Your task to perform on an android device: Open privacy settings Image 0: 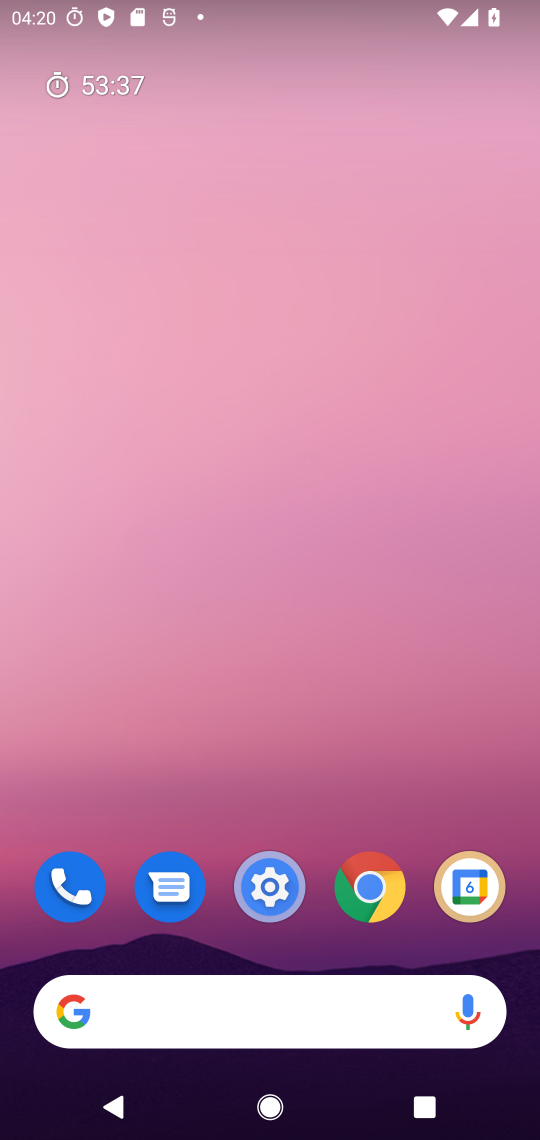
Step 0: press home button
Your task to perform on an android device: Open privacy settings Image 1: 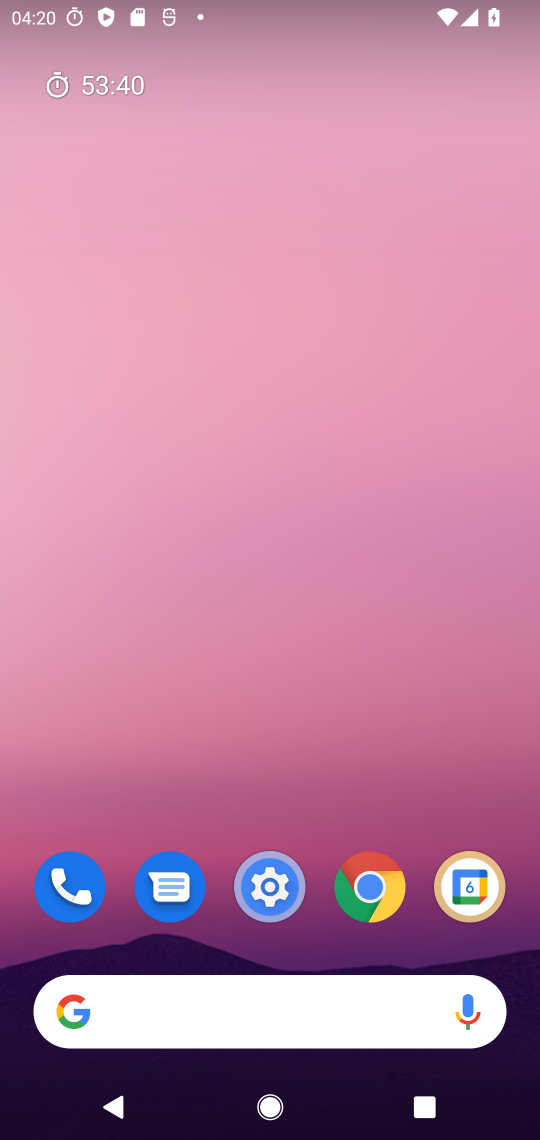
Step 1: drag from (421, 784) to (431, 355)
Your task to perform on an android device: Open privacy settings Image 2: 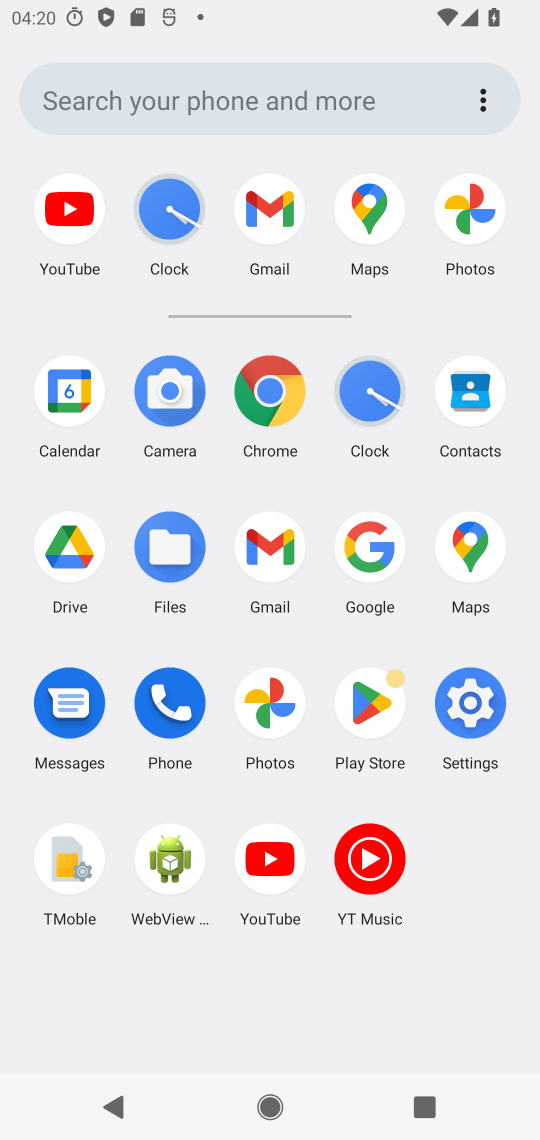
Step 2: click (468, 711)
Your task to perform on an android device: Open privacy settings Image 3: 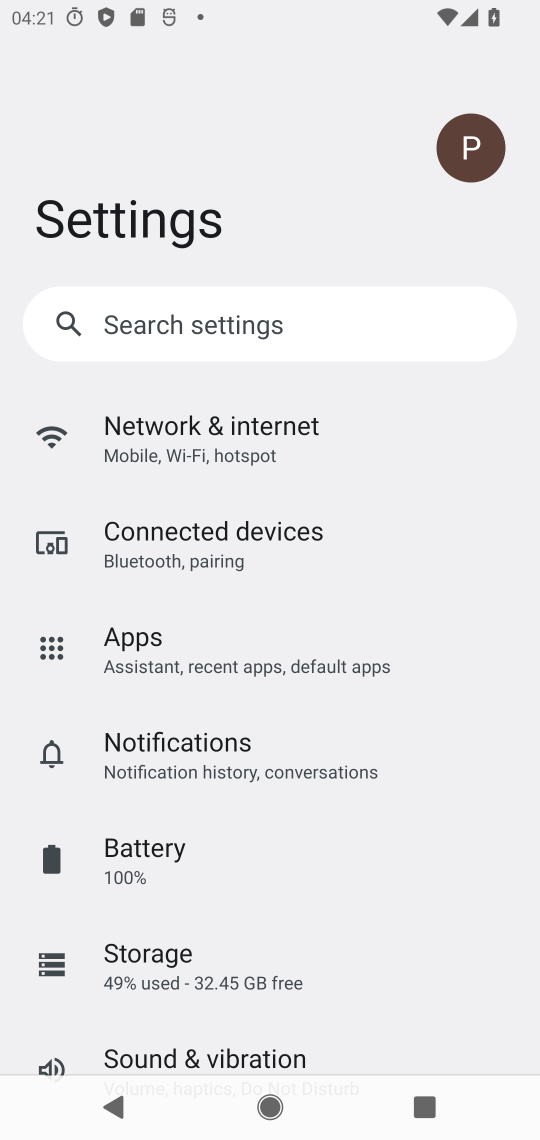
Step 3: drag from (438, 869) to (454, 713)
Your task to perform on an android device: Open privacy settings Image 4: 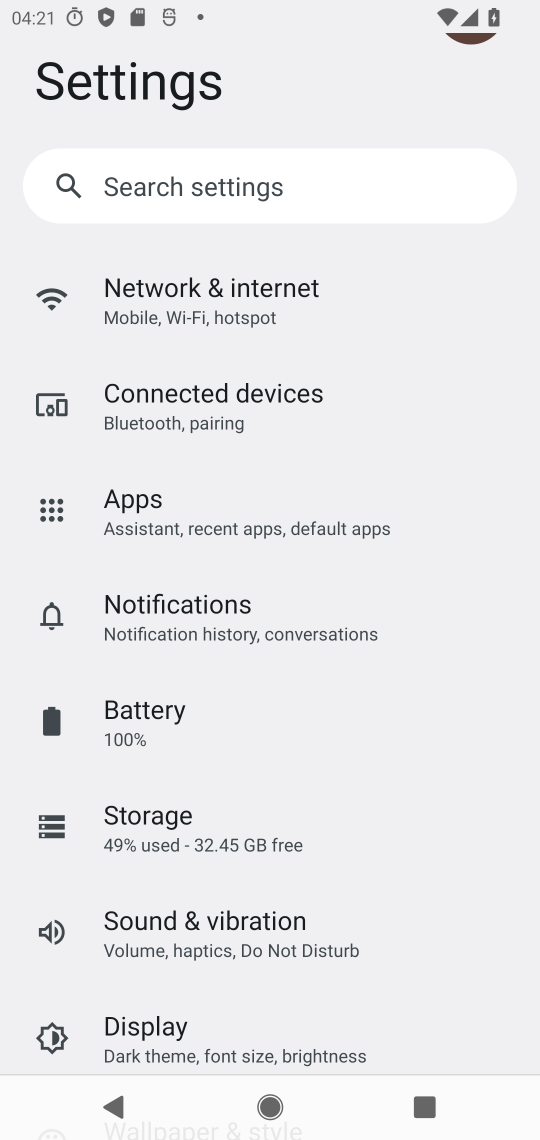
Step 4: drag from (447, 862) to (447, 683)
Your task to perform on an android device: Open privacy settings Image 5: 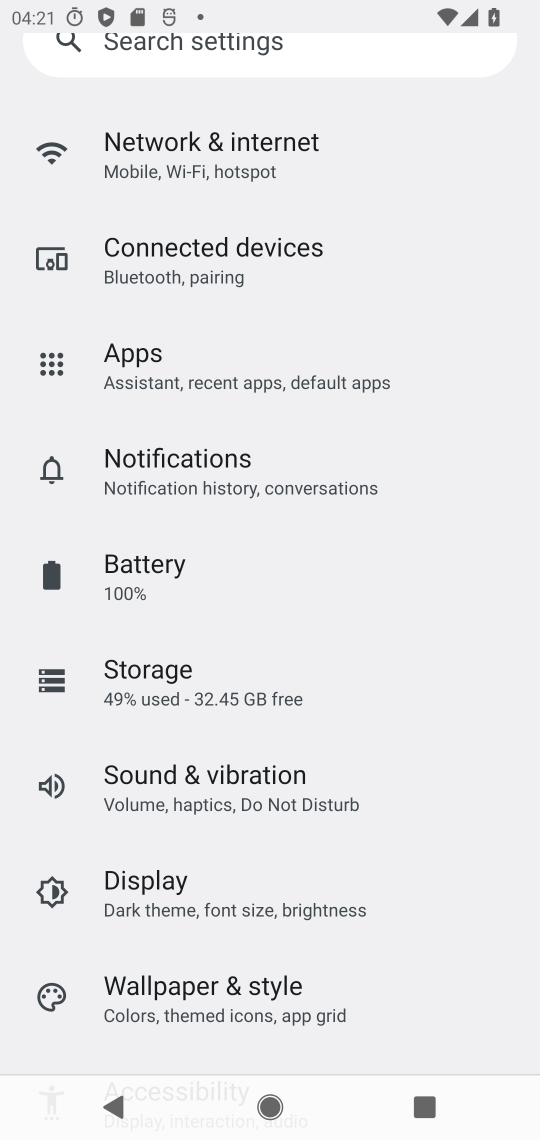
Step 5: drag from (427, 861) to (441, 696)
Your task to perform on an android device: Open privacy settings Image 6: 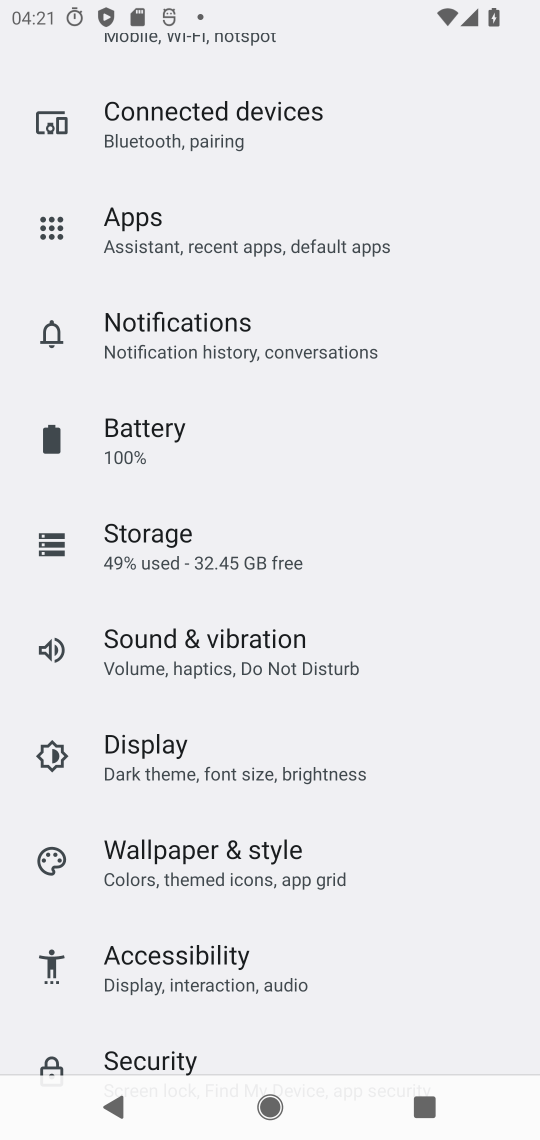
Step 6: drag from (465, 848) to (459, 684)
Your task to perform on an android device: Open privacy settings Image 7: 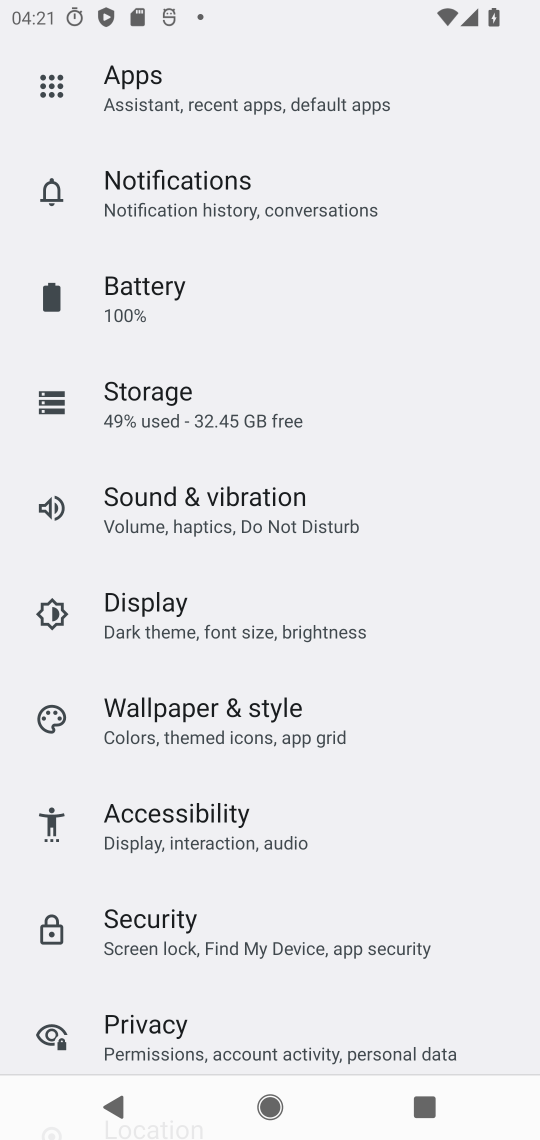
Step 7: drag from (443, 875) to (446, 640)
Your task to perform on an android device: Open privacy settings Image 8: 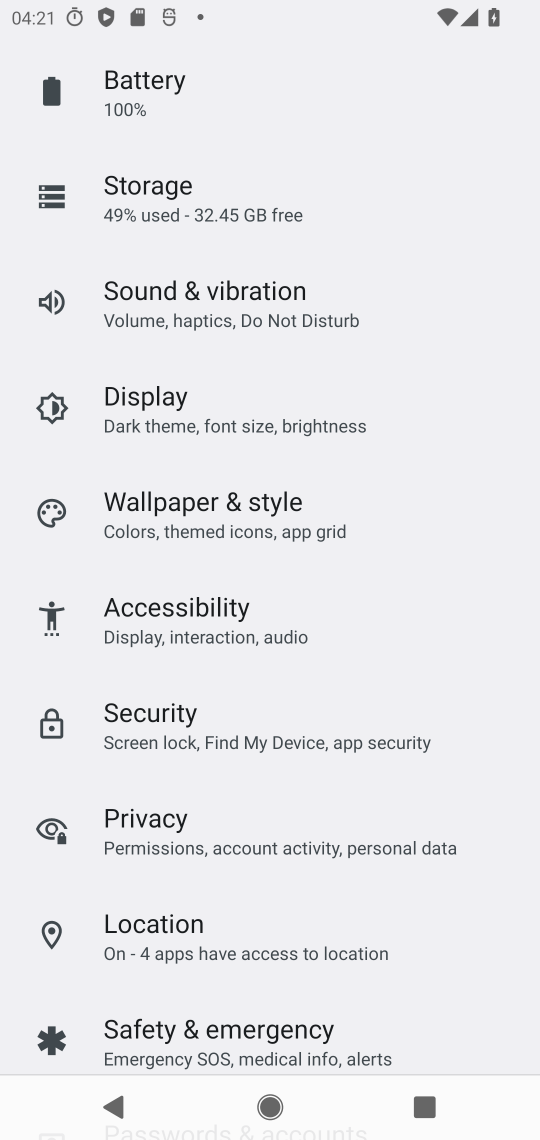
Step 8: drag from (467, 891) to (467, 630)
Your task to perform on an android device: Open privacy settings Image 9: 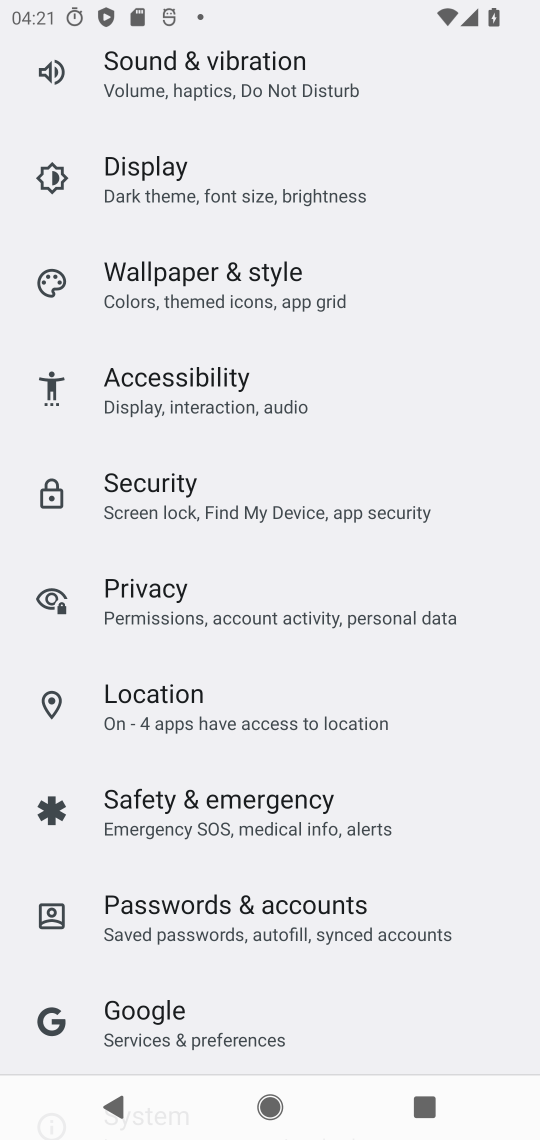
Step 9: drag from (449, 837) to (470, 560)
Your task to perform on an android device: Open privacy settings Image 10: 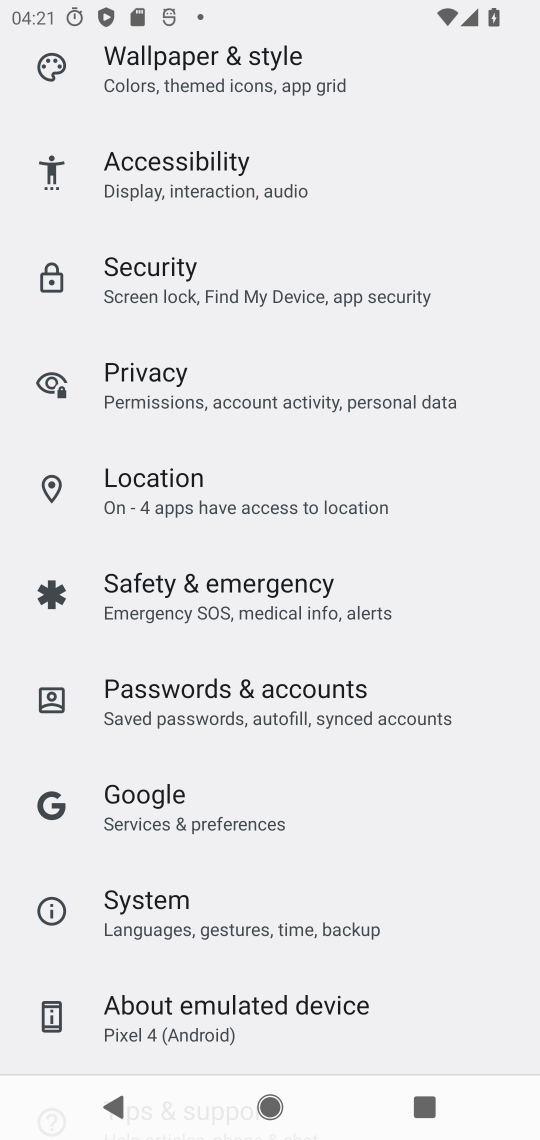
Step 10: drag from (461, 840) to (468, 535)
Your task to perform on an android device: Open privacy settings Image 11: 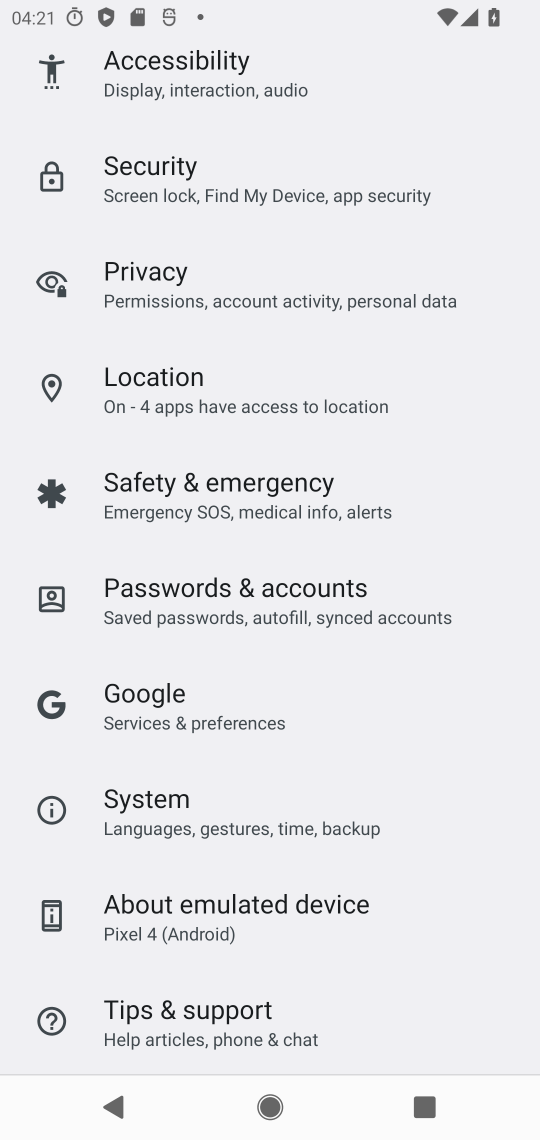
Step 11: click (387, 286)
Your task to perform on an android device: Open privacy settings Image 12: 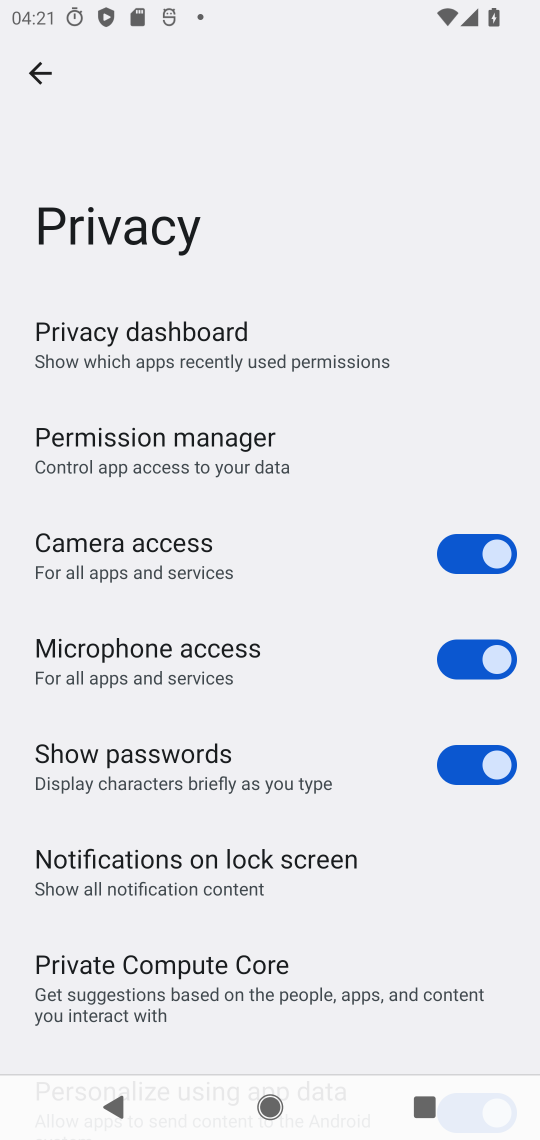
Step 12: task complete